Your task to perform on an android device: What's on my calendar today? Image 0: 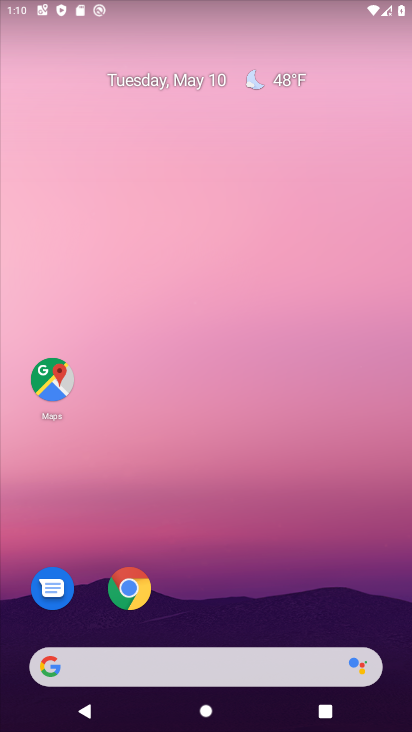
Step 0: click (319, 45)
Your task to perform on an android device: What's on my calendar today? Image 1: 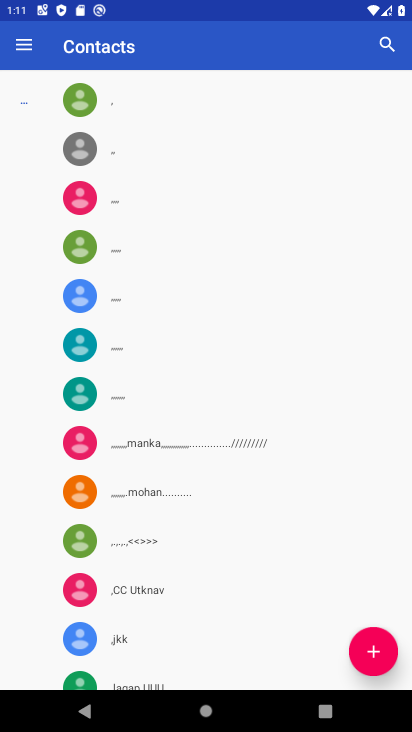
Step 1: press home button
Your task to perform on an android device: What's on my calendar today? Image 2: 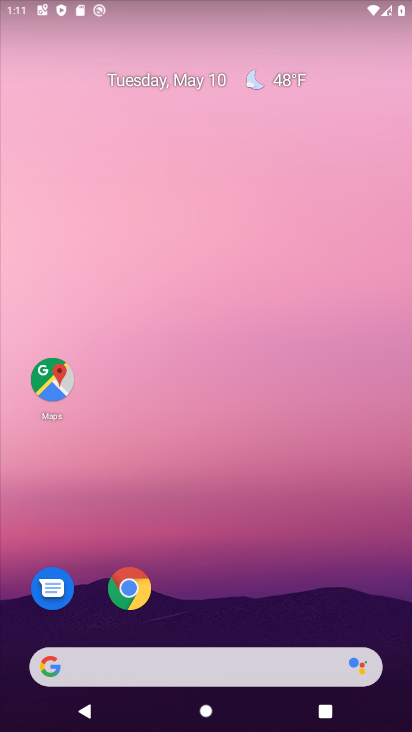
Step 2: drag from (214, 623) to (323, 116)
Your task to perform on an android device: What's on my calendar today? Image 3: 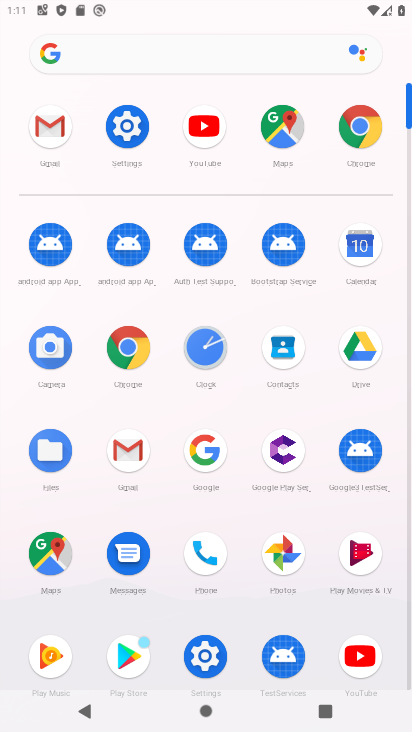
Step 3: click (354, 243)
Your task to perform on an android device: What's on my calendar today? Image 4: 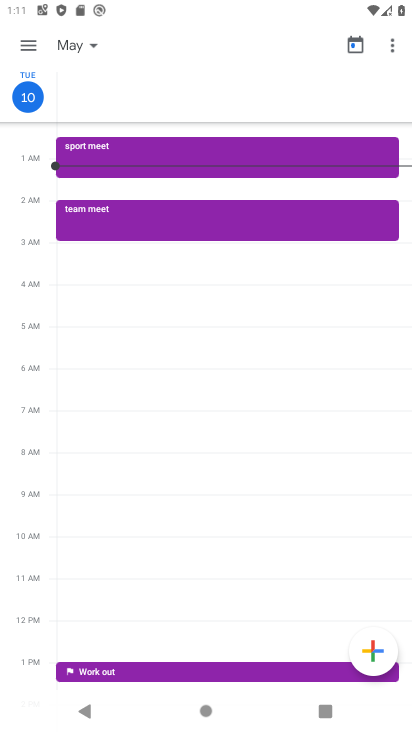
Step 4: click (26, 43)
Your task to perform on an android device: What's on my calendar today? Image 5: 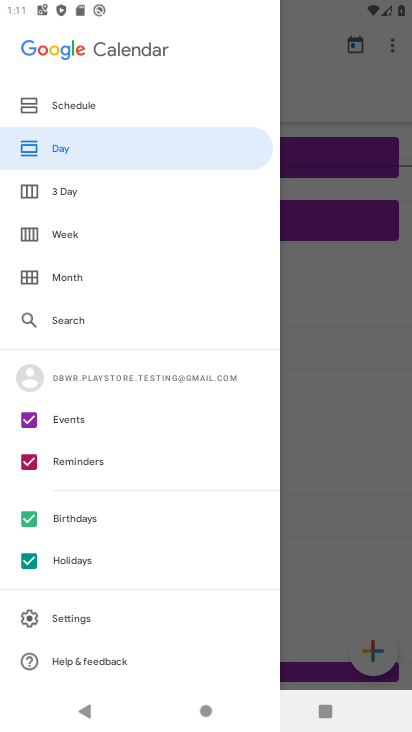
Step 5: click (95, 227)
Your task to perform on an android device: What's on my calendar today? Image 6: 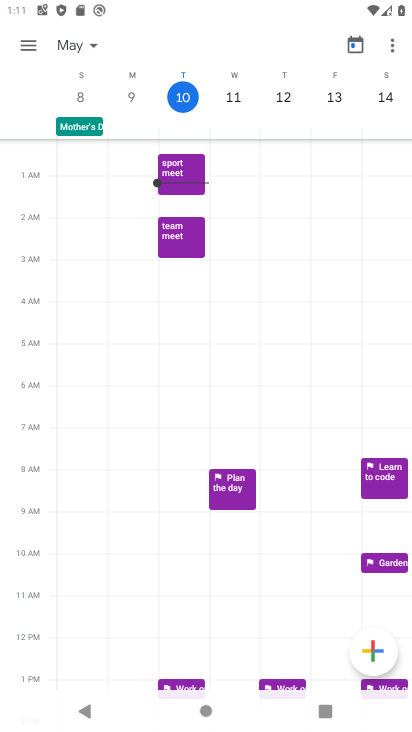
Step 6: click (38, 40)
Your task to perform on an android device: What's on my calendar today? Image 7: 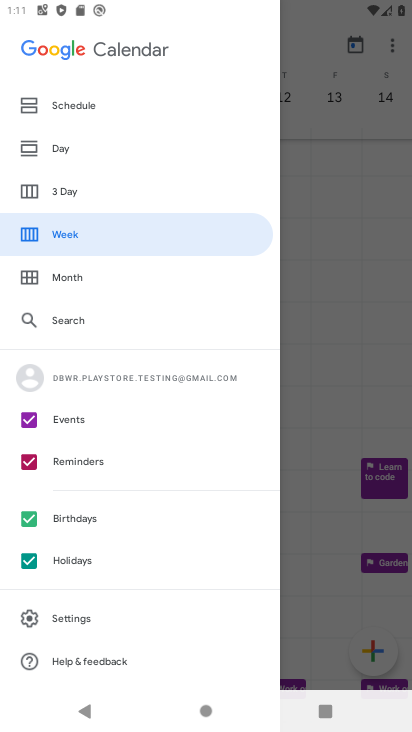
Step 7: click (104, 150)
Your task to perform on an android device: What's on my calendar today? Image 8: 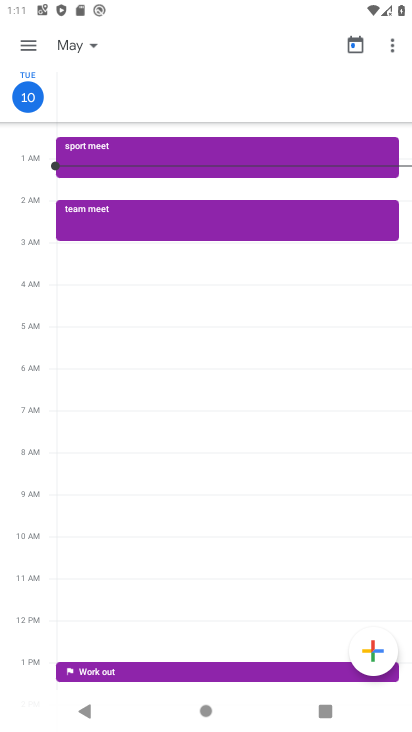
Step 8: task complete